Your task to perform on an android device: Open Google Chrome and click the shortcut for Amazon.com Image 0: 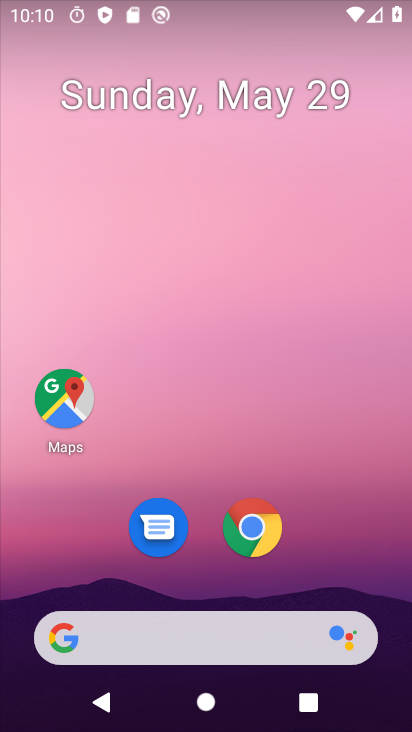
Step 0: click (249, 528)
Your task to perform on an android device: Open Google Chrome and click the shortcut for Amazon.com Image 1: 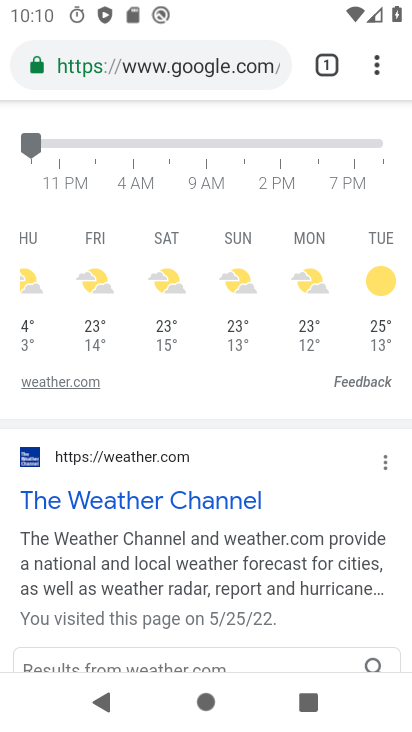
Step 1: drag from (385, 56) to (232, 140)
Your task to perform on an android device: Open Google Chrome and click the shortcut for Amazon.com Image 2: 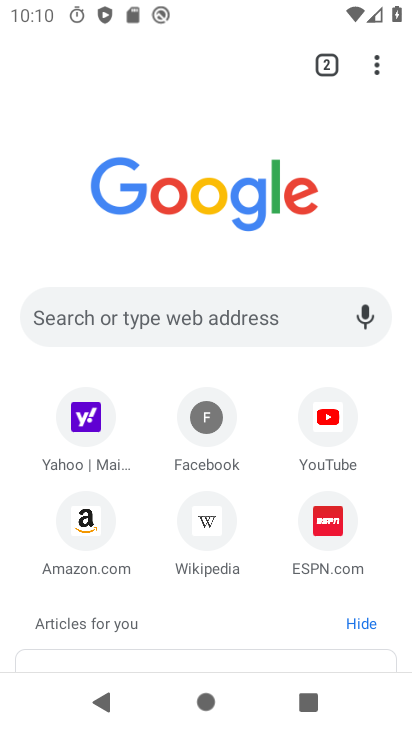
Step 2: click (77, 515)
Your task to perform on an android device: Open Google Chrome and click the shortcut for Amazon.com Image 3: 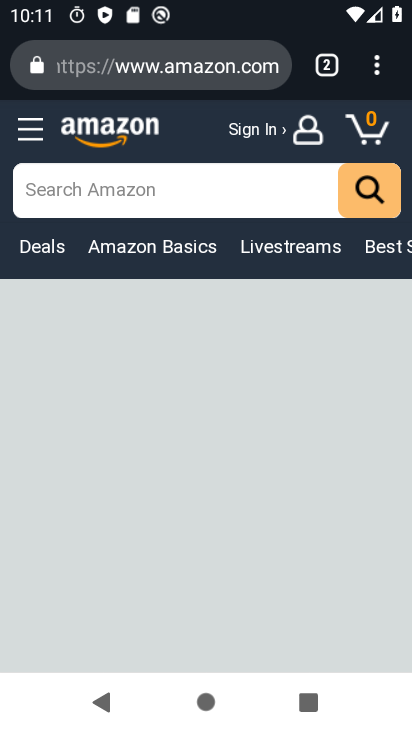
Step 3: task complete